Your task to perform on an android device: set the stopwatch Image 0: 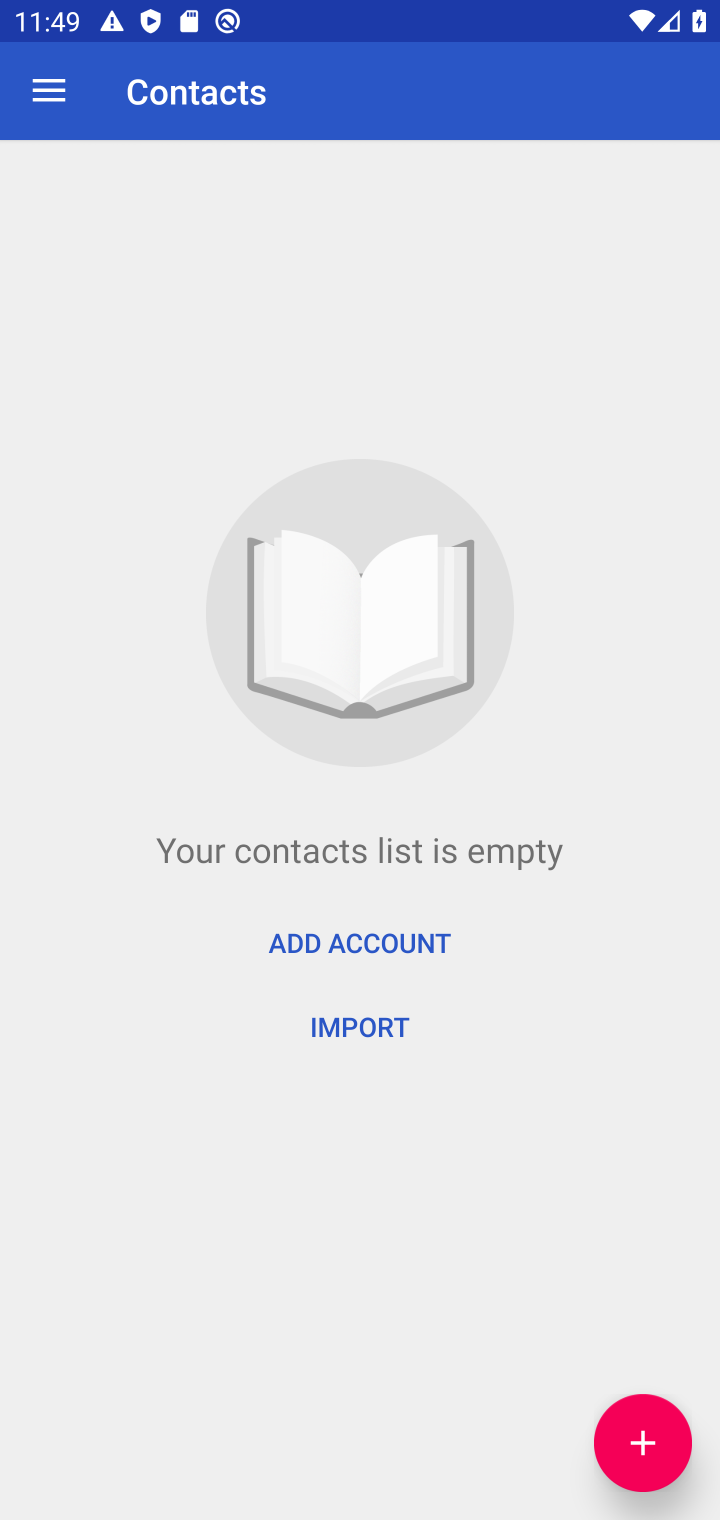
Step 0: click (542, 917)
Your task to perform on an android device: set the stopwatch Image 1: 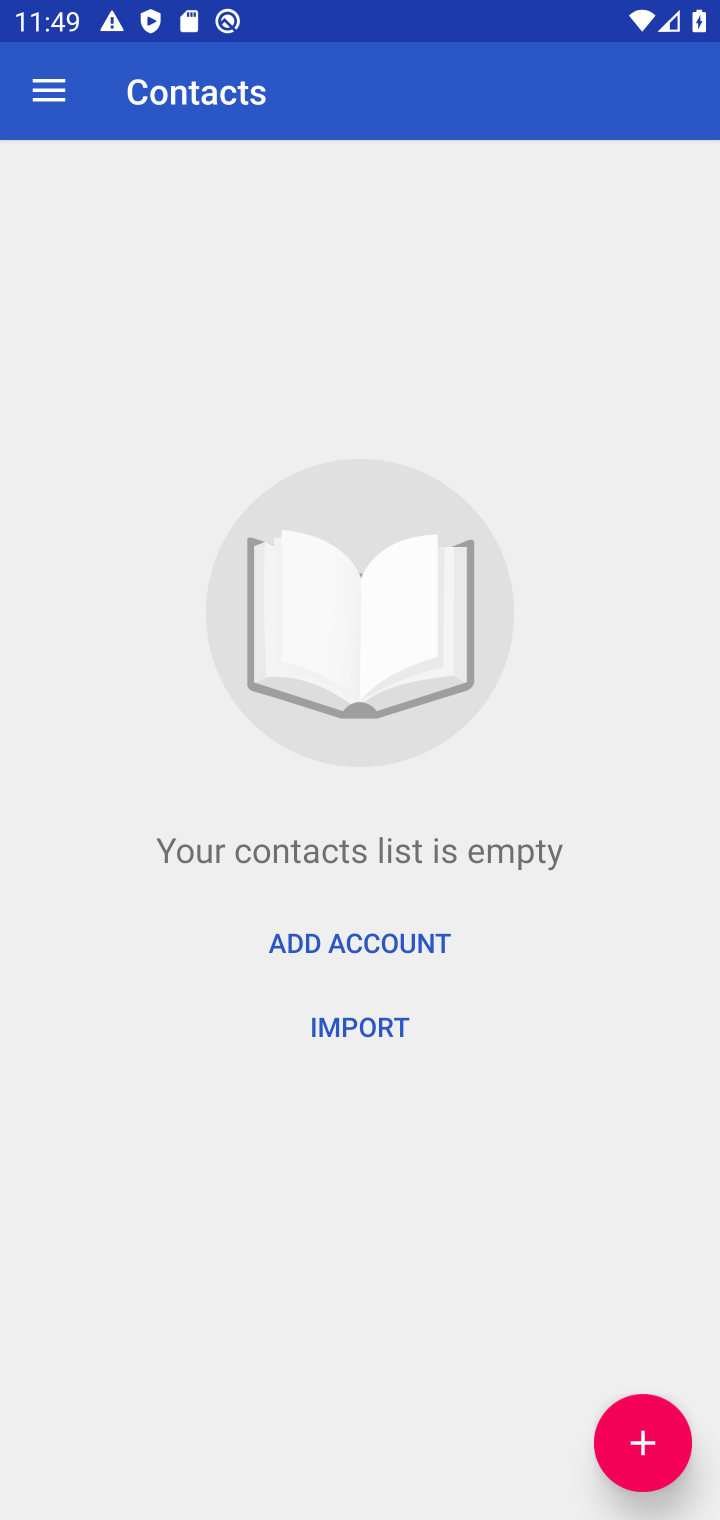
Step 1: press home button
Your task to perform on an android device: set the stopwatch Image 2: 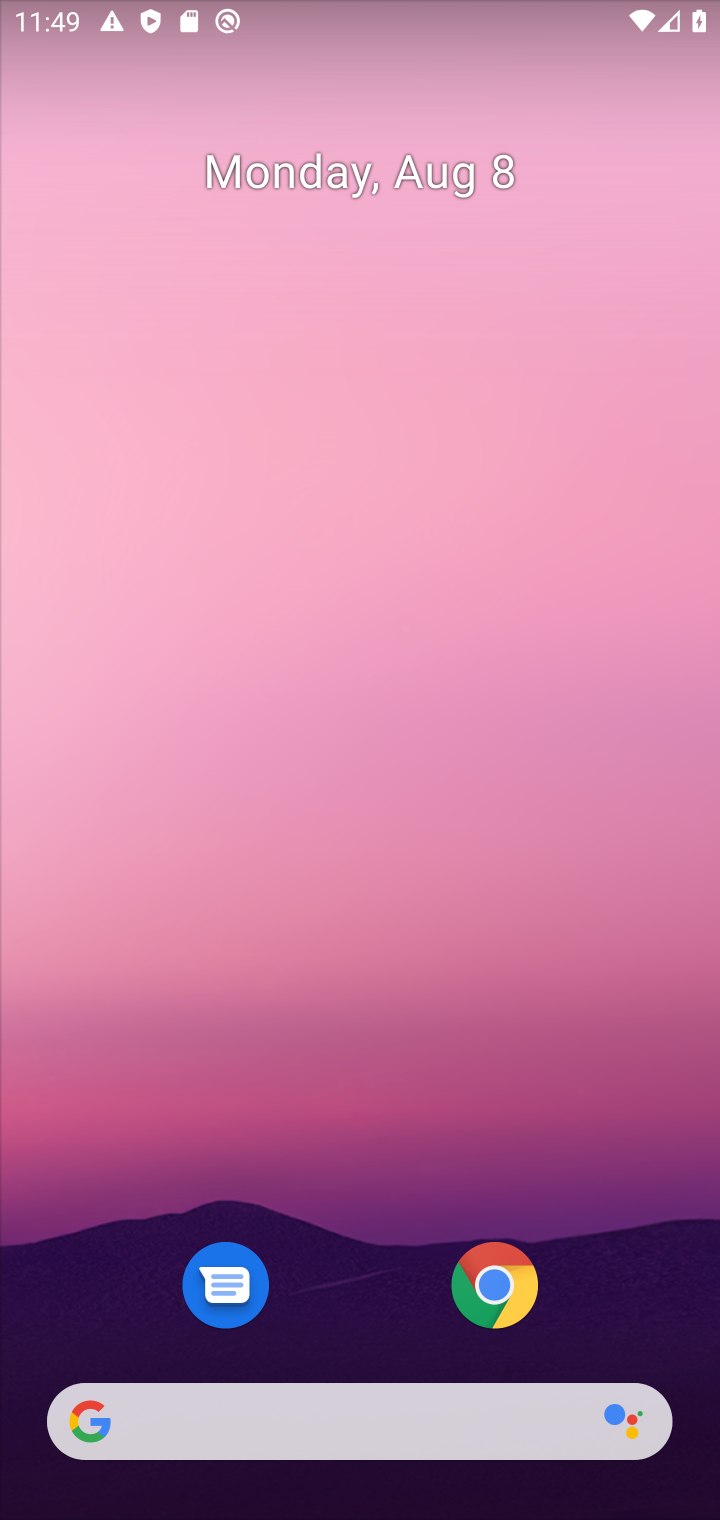
Step 2: drag from (352, 1148) to (565, 229)
Your task to perform on an android device: set the stopwatch Image 3: 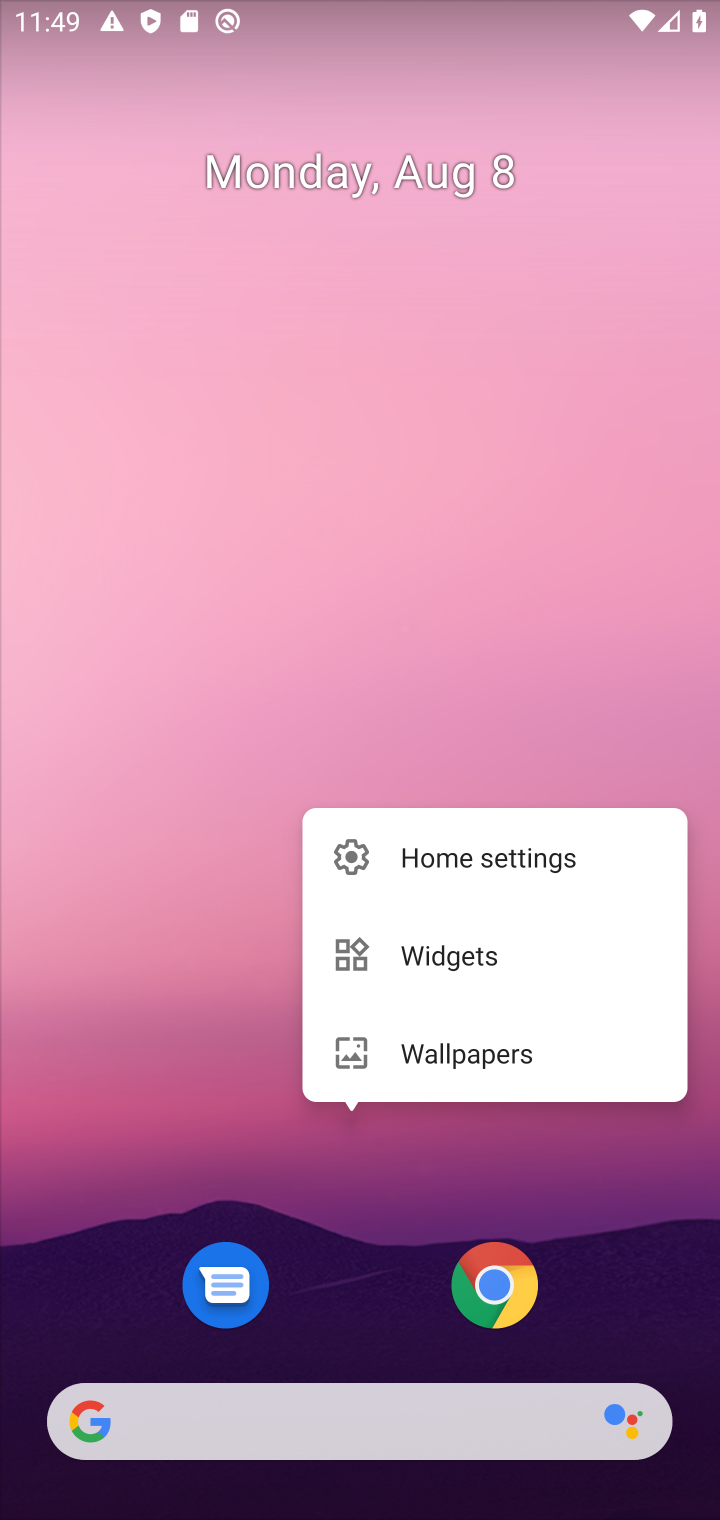
Step 3: drag from (453, 1040) to (364, 37)
Your task to perform on an android device: set the stopwatch Image 4: 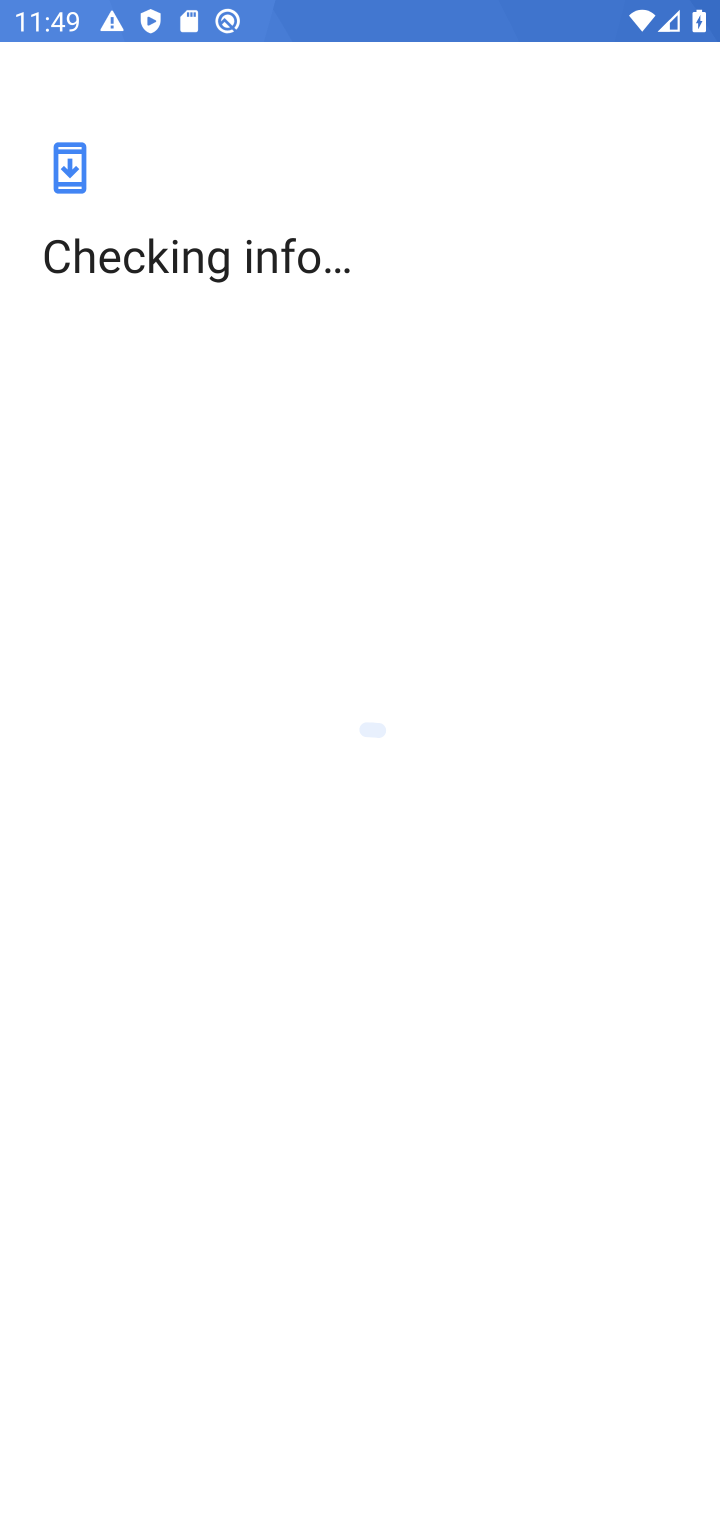
Step 4: press home button
Your task to perform on an android device: set the stopwatch Image 5: 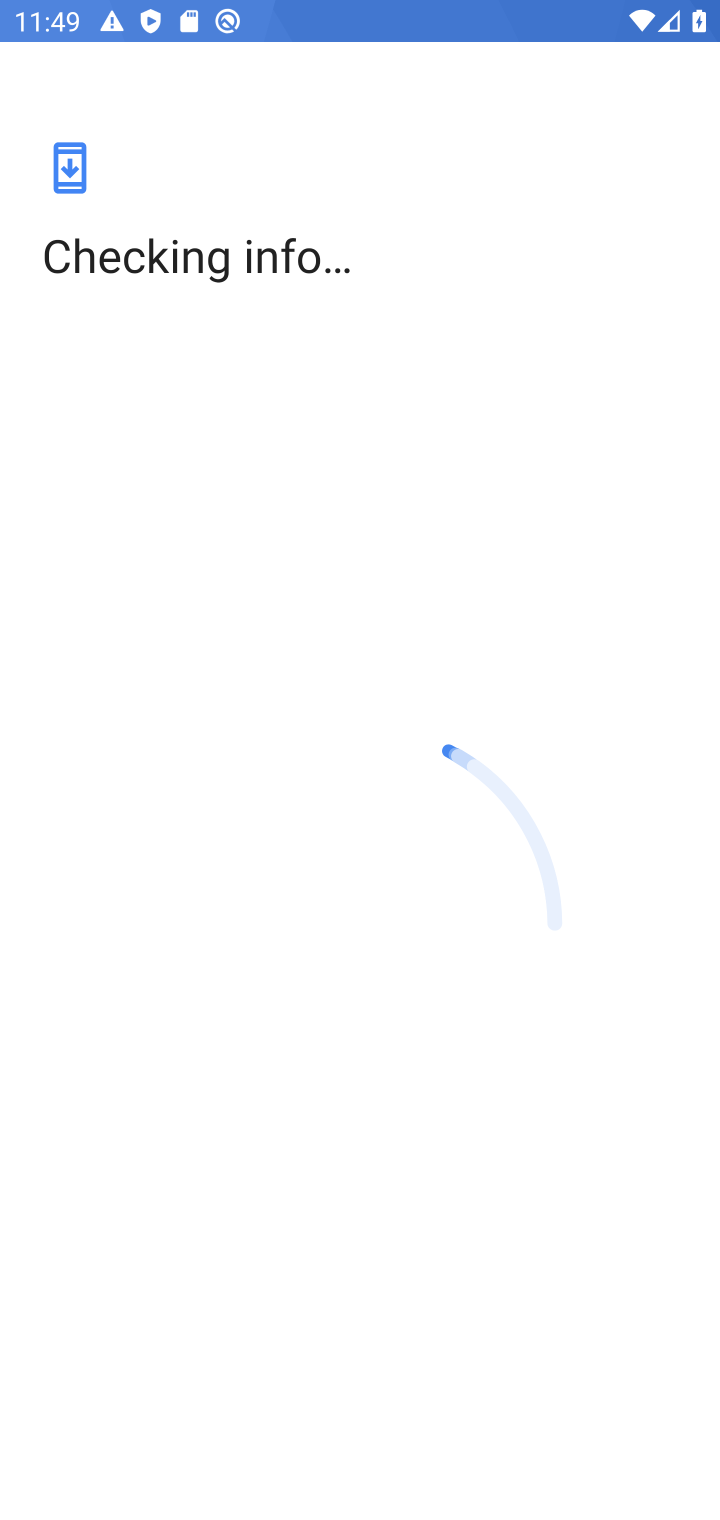
Step 5: press home button
Your task to perform on an android device: set the stopwatch Image 6: 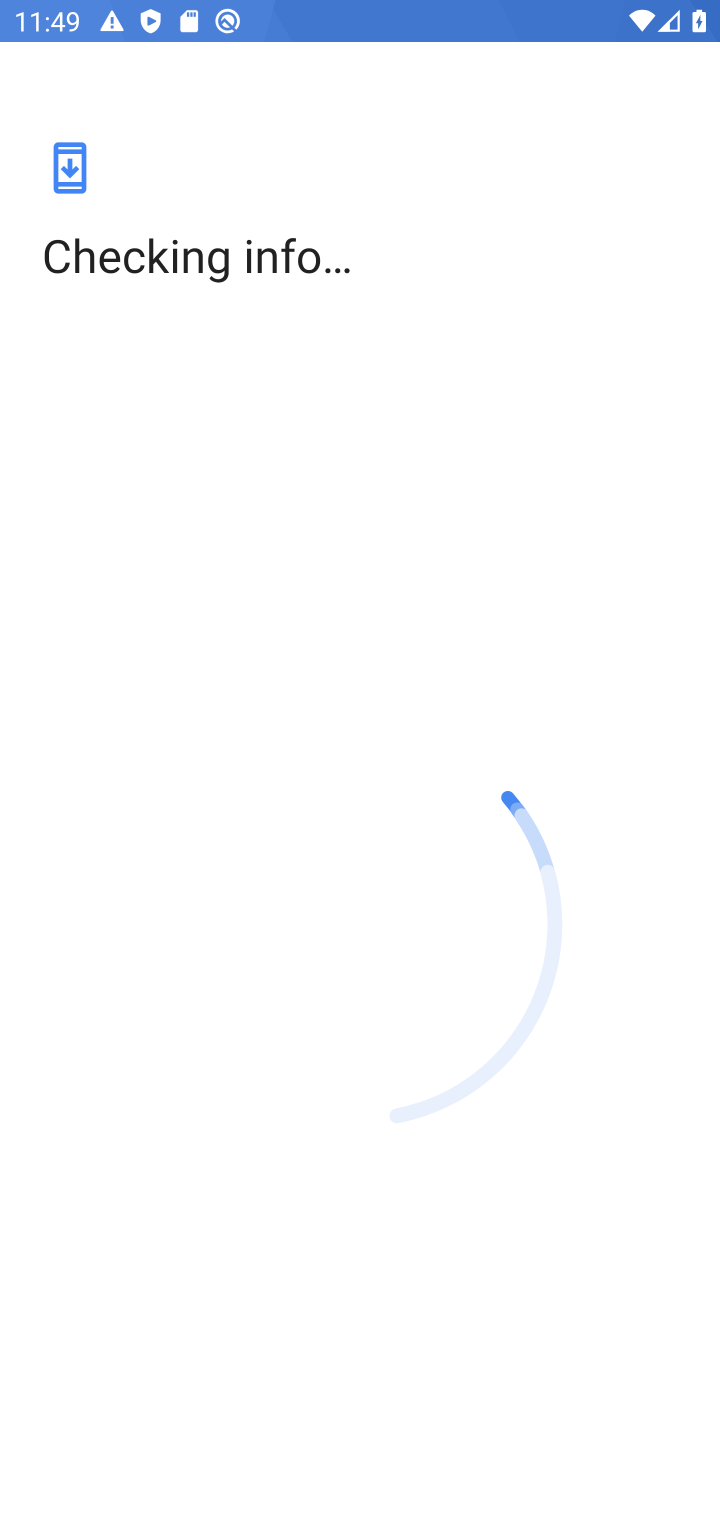
Step 6: drag from (337, 1274) to (486, 708)
Your task to perform on an android device: set the stopwatch Image 7: 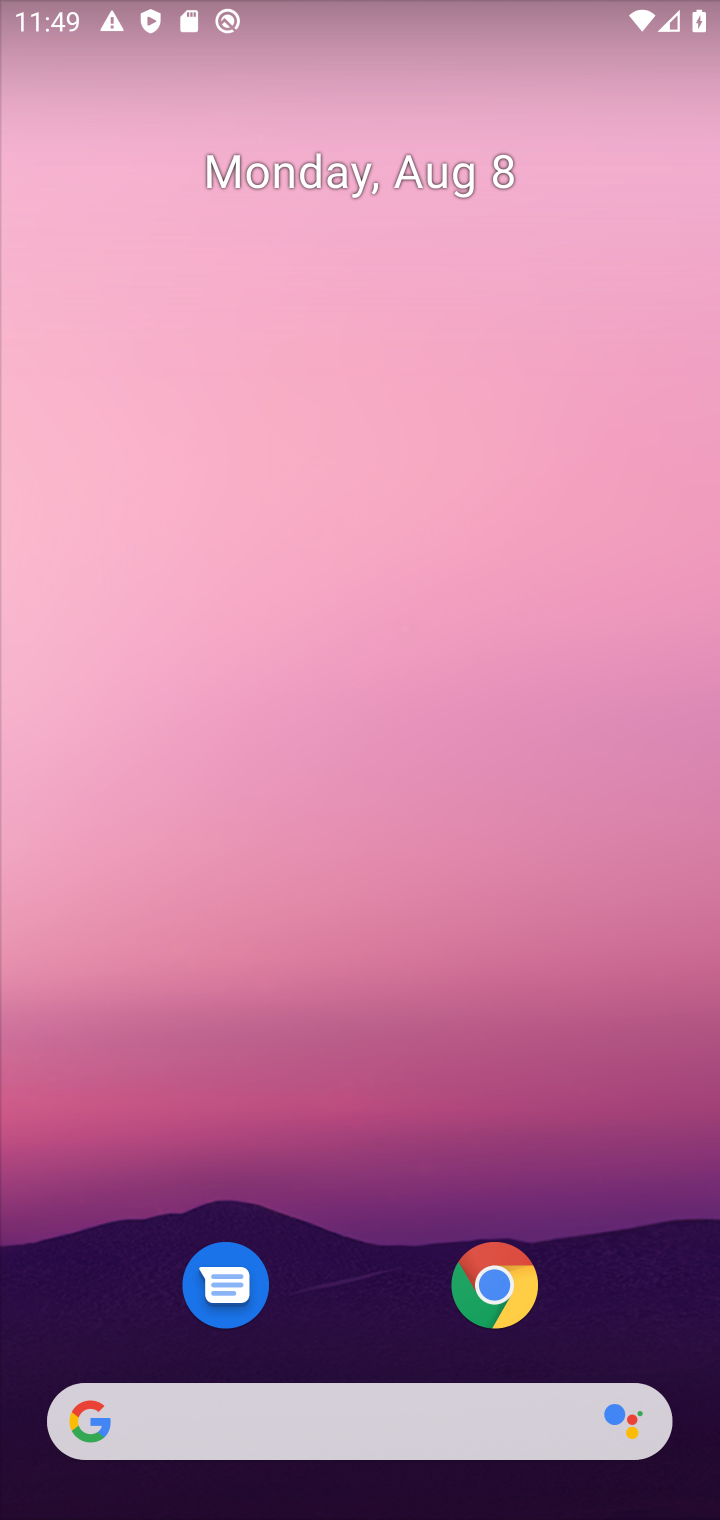
Step 7: drag from (312, 1275) to (526, 189)
Your task to perform on an android device: set the stopwatch Image 8: 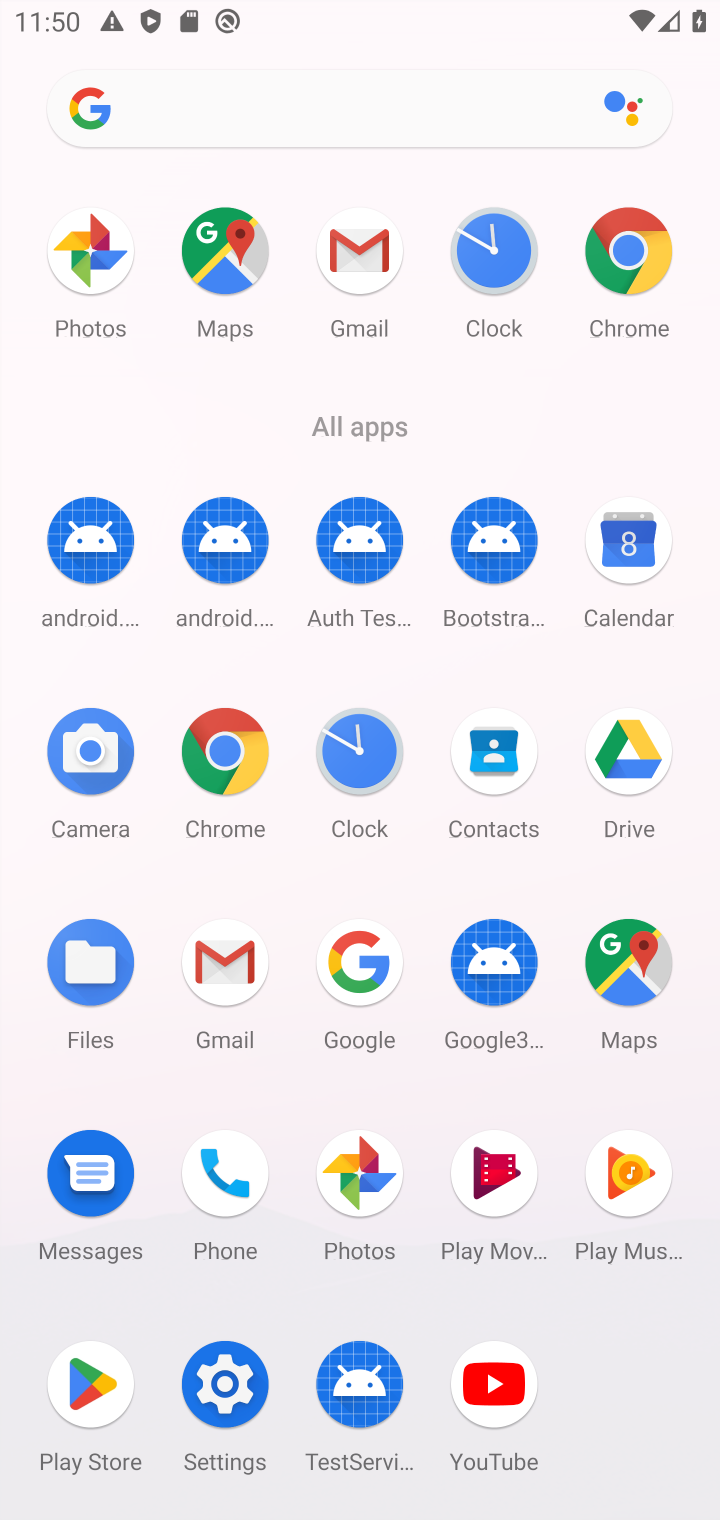
Step 8: click (336, 763)
Your task to perform on an android device: set the stopwatch Image 9: 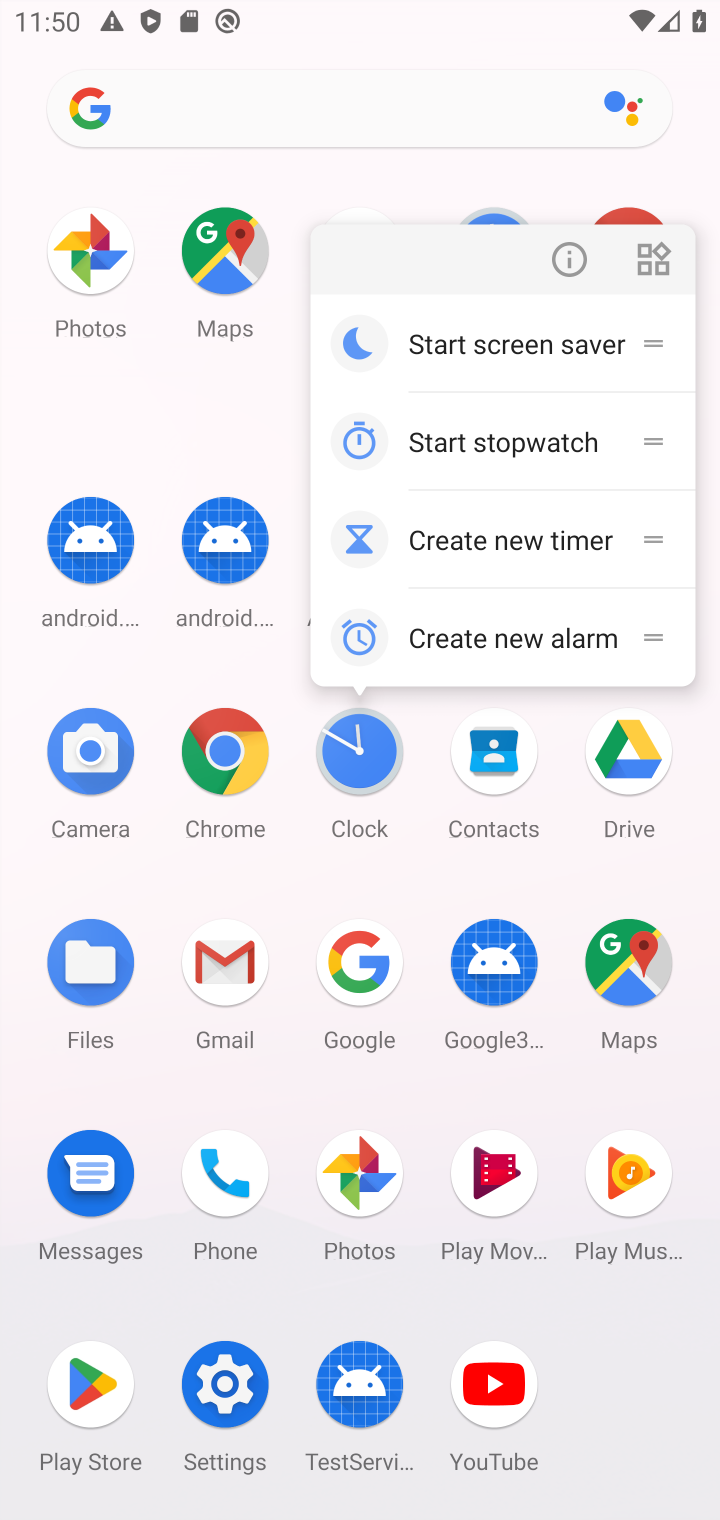
Step 9: click (569, 274)
Your task to perform on an android device: set the stopwatch Image 10: 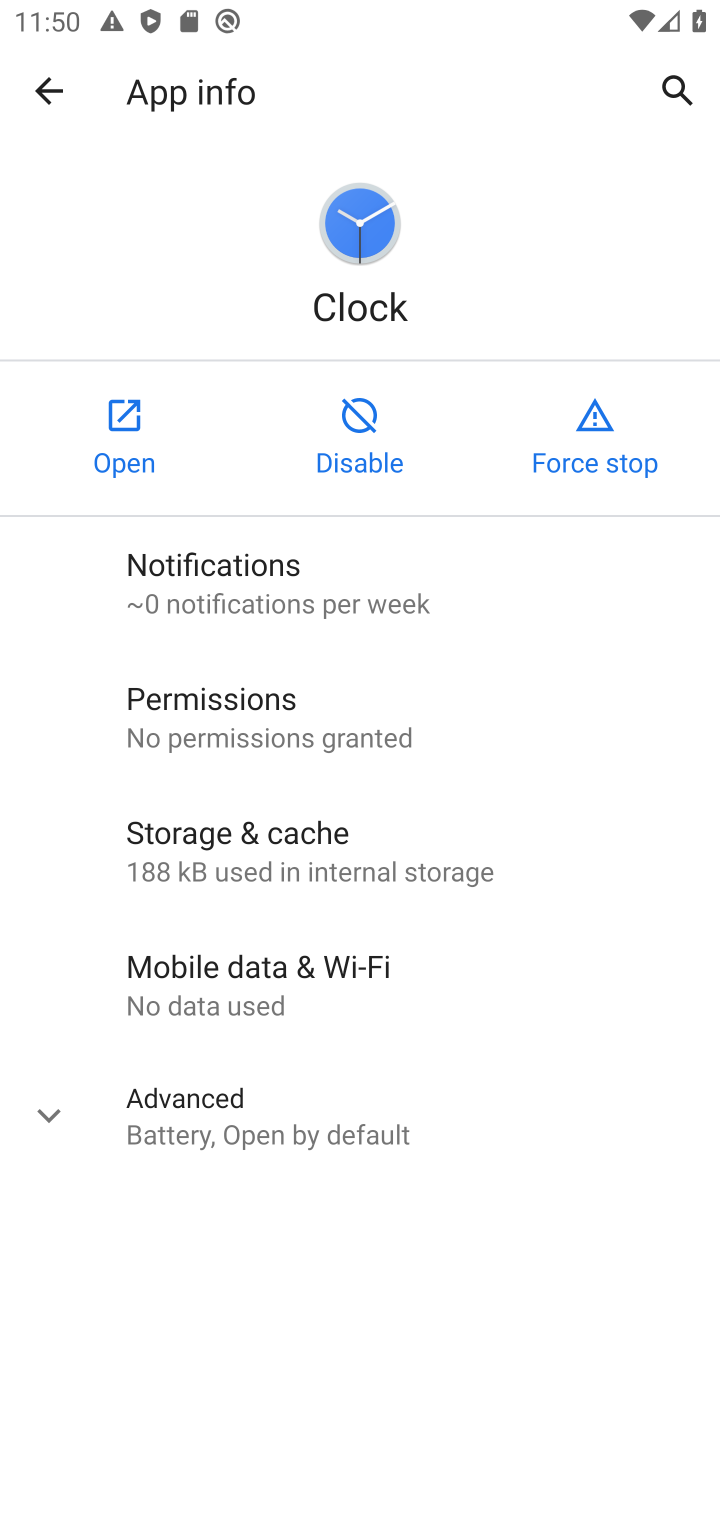
Step 10: click (104, 445)
Your task to perform on an android device: set the stopwatch Image 11: 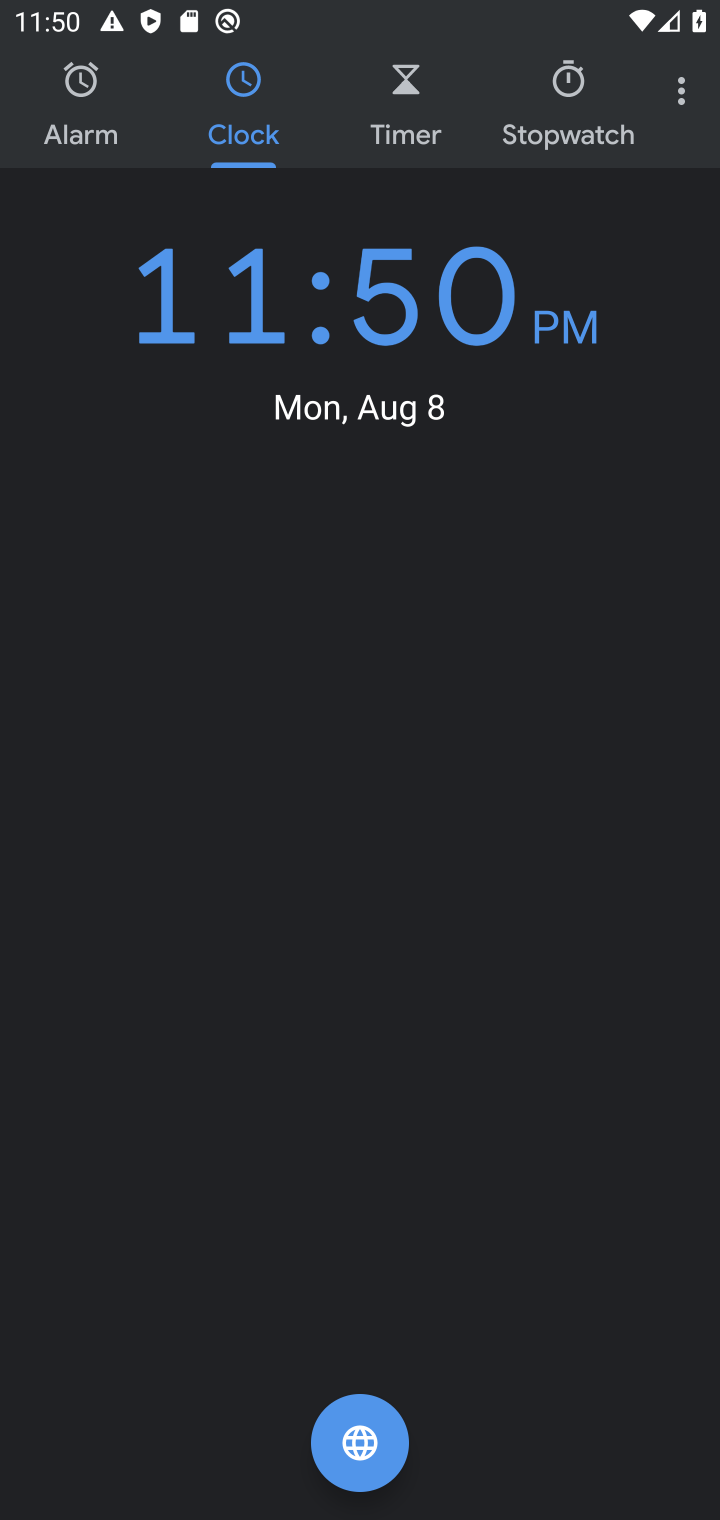
Step 11: click (593, 109)
Your task to perform on an android device: set the stopwatch Image 12: 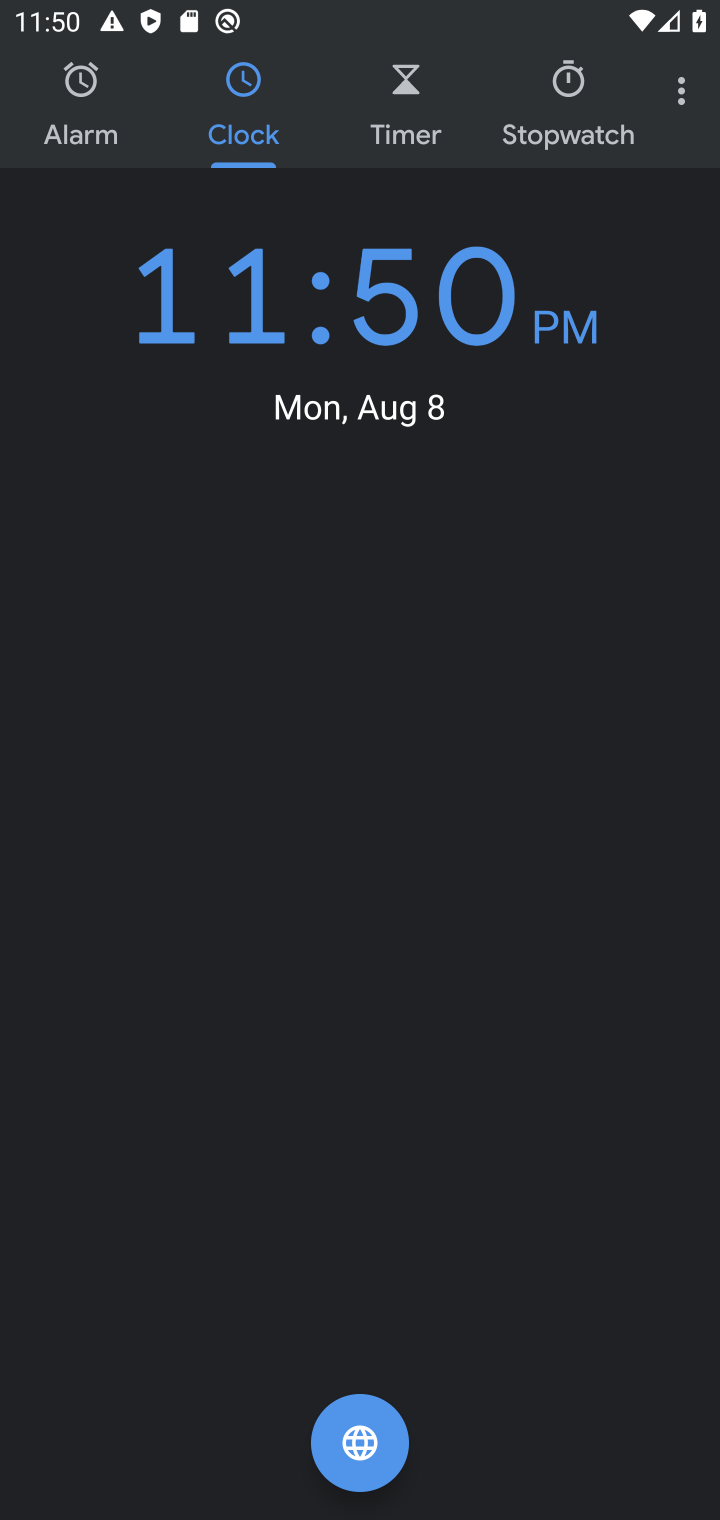
Step 12: click (565, 99)
Your task to perform on an android device: set the stopwatch Image 13: 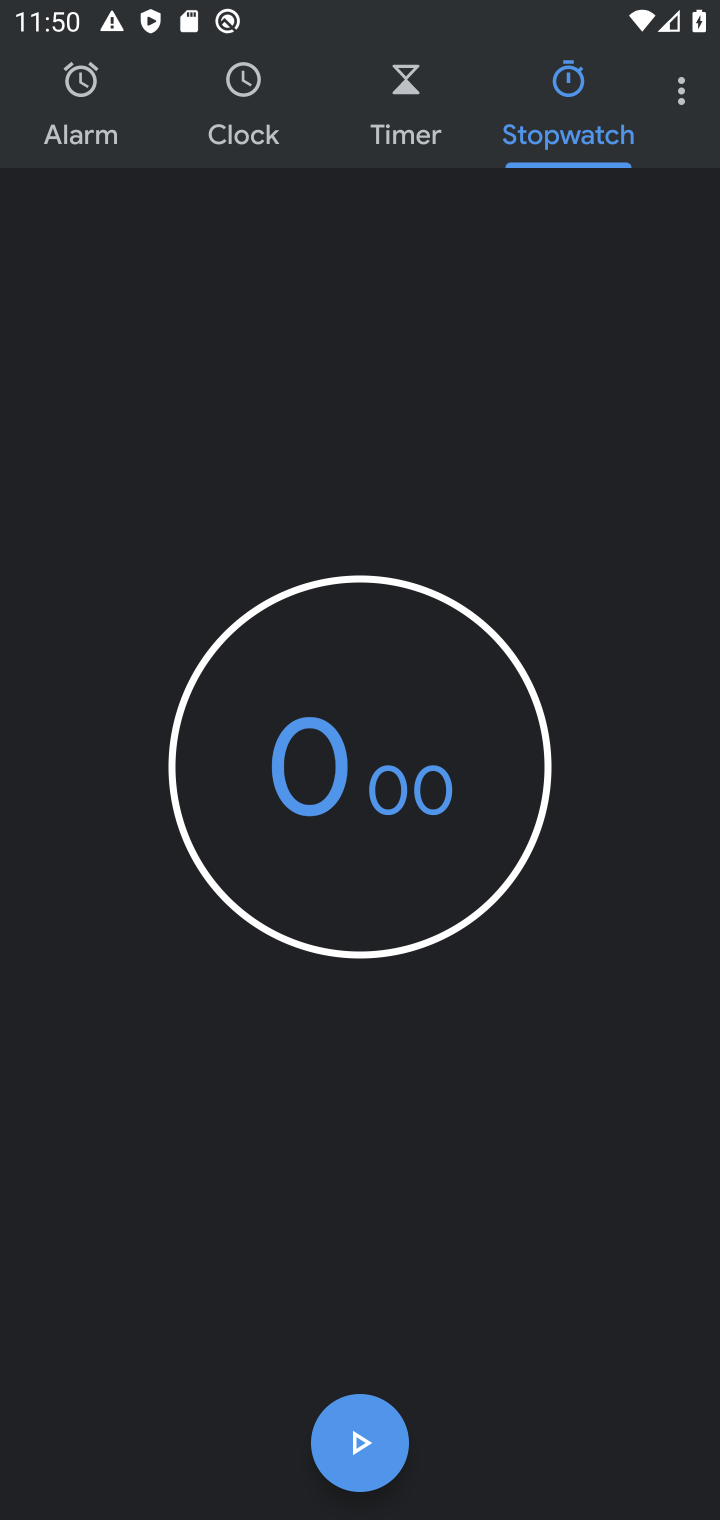
Step 13: click (377, 1475)
Your task to perform on an android device: set the stopwatch Image 14: 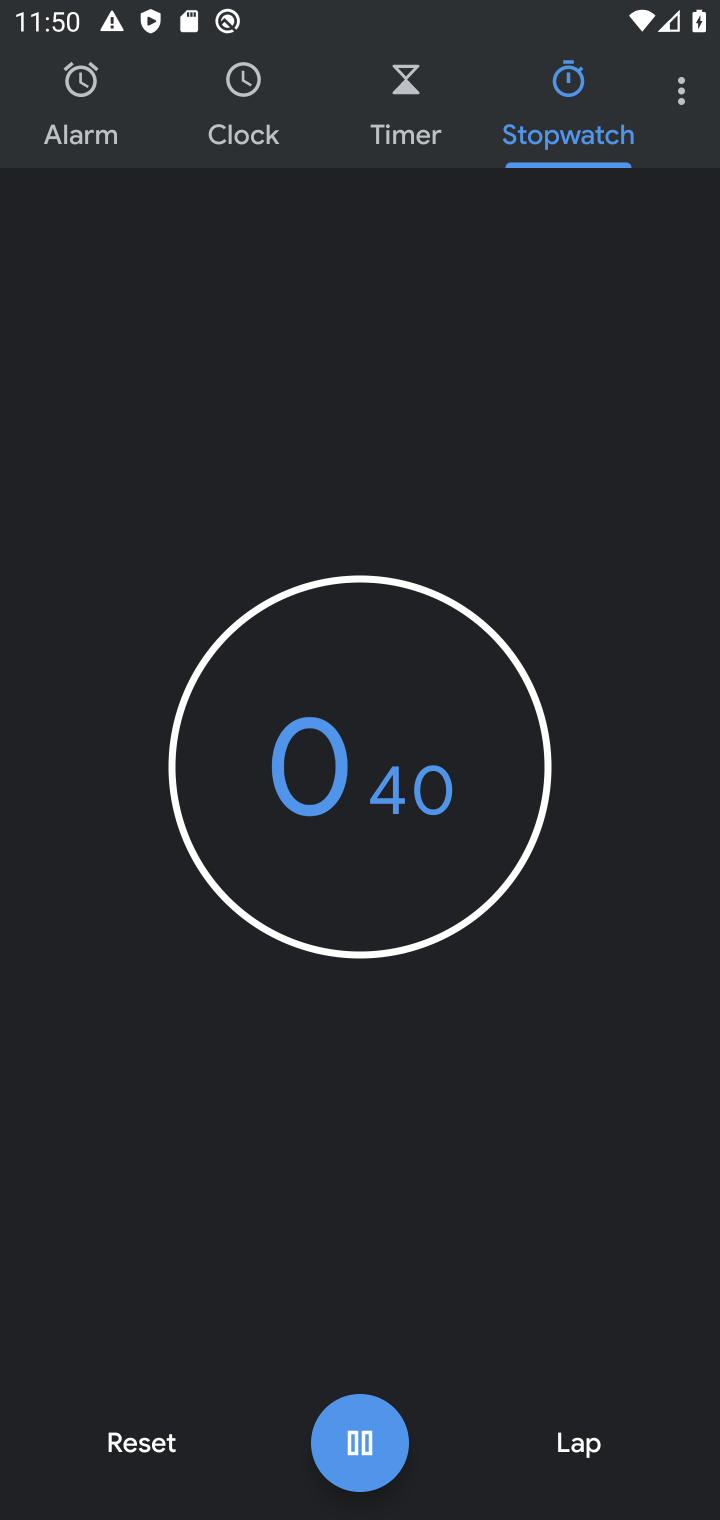
Step 14: task complete